Your task to perform on an android device: change timer sound Image 0: 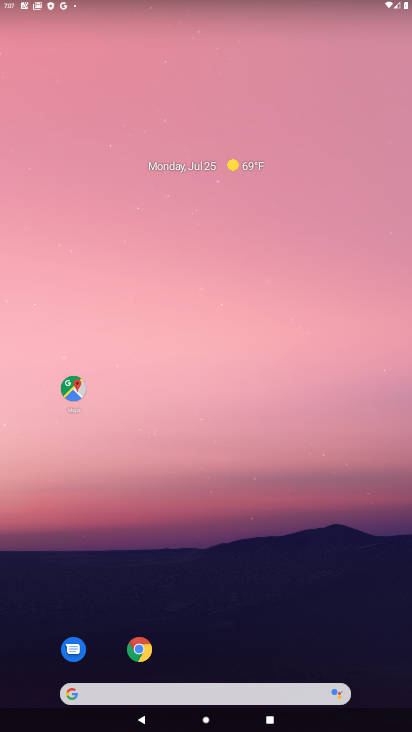
Step 0: drag from (214, 589) to (80, 126)
Your task to perform on an android device: change timer sound Image 1: 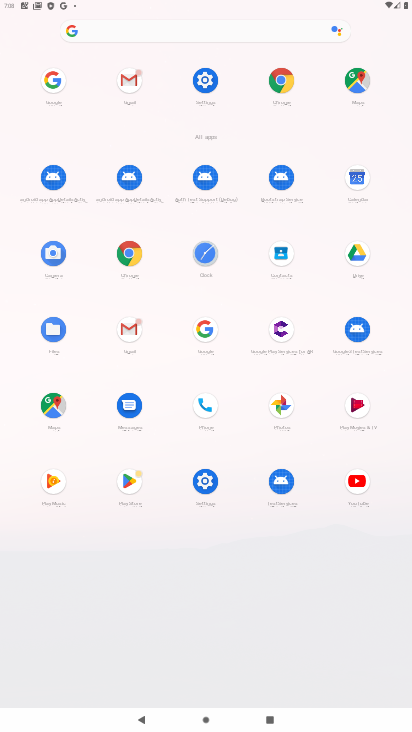
Step 1: click (196, 238)
Your task to perform on an android device: change timer sound Image 2: 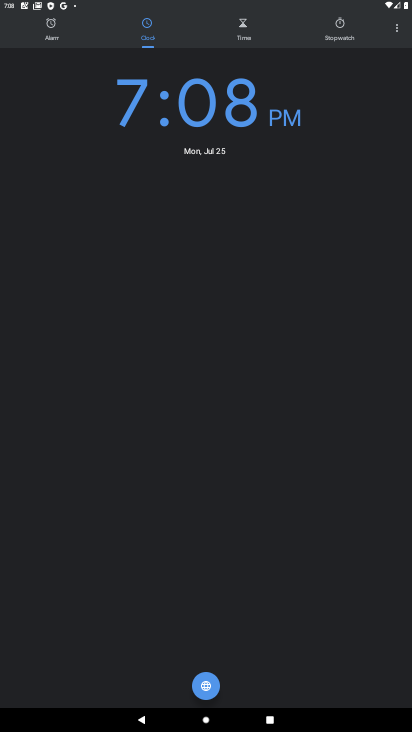
Step 2: click (393, 31)
Your task to perform on an android device: change timer sound Image 3: 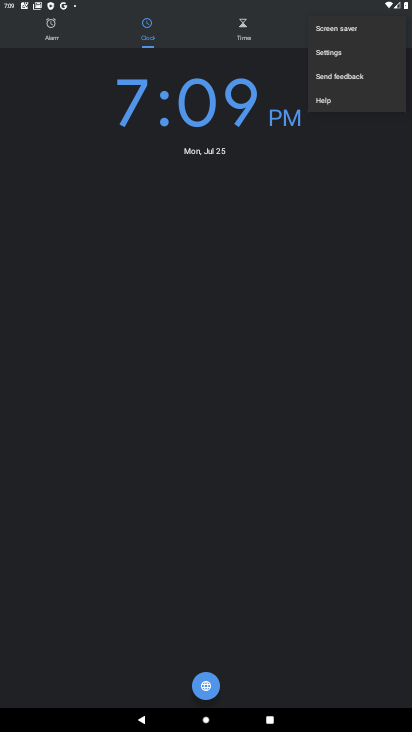
Step 3: click (342, 53)
Your task to perform on an android device: change timer sound Image 4: 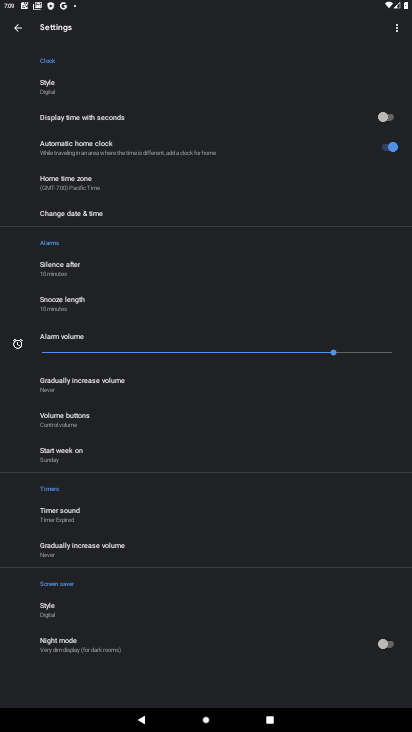
Step 4: click (64, 507)
Your task to perform on an android device: change timer sound Image 5: 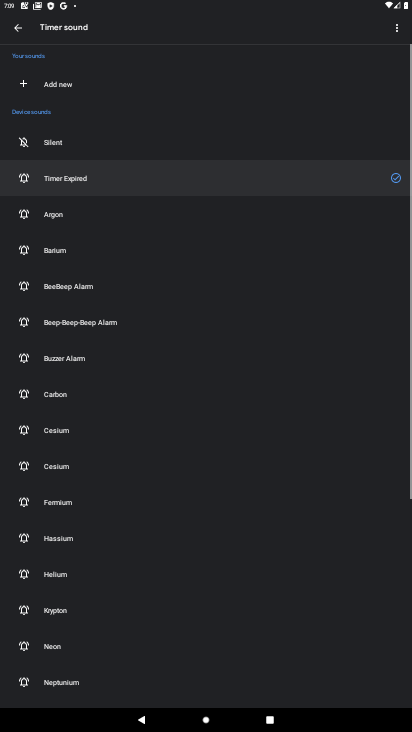
Step 5: click (69, 278)
Your task to perform on an android device: change timer sound Image 6: 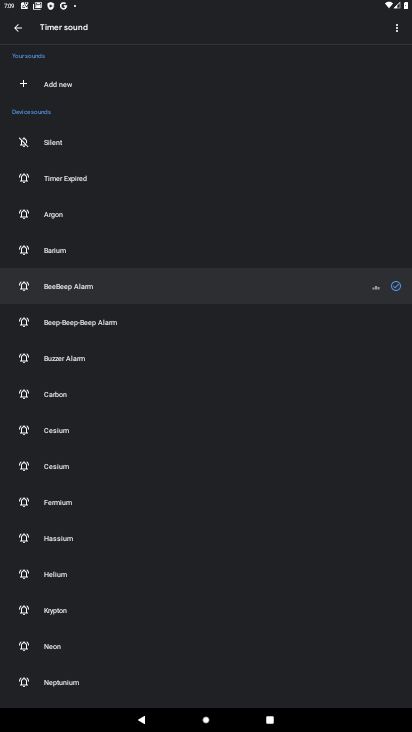
Step 6: task complete